Your task to perform on an android device: open the mobile data screen to see how much data has been used Image 0: 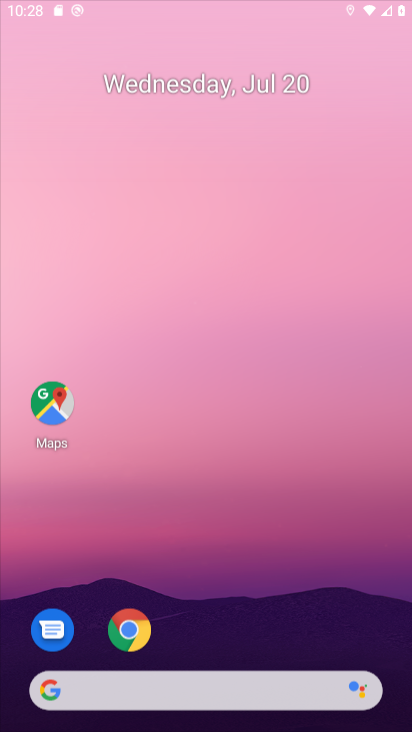
Step 0: click (156, 109)
Your task to perform on an android device: open the mobile data screen to see how much data has been used Image 1: 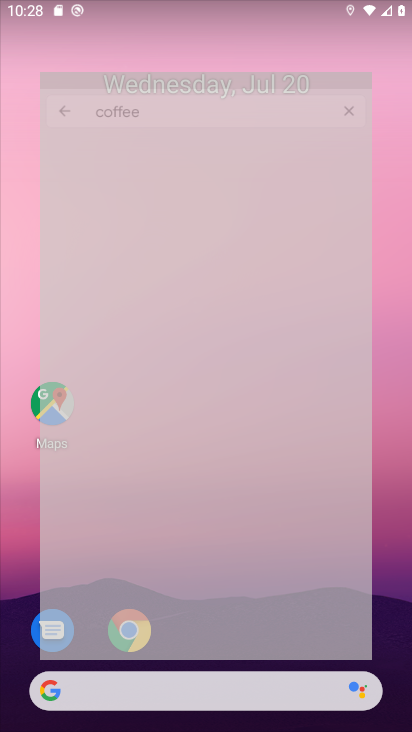
Step 1: drag from (246, 621) to (200, 201)
Your task to perform on an android device: open the mobile data screen to see how much data has been used Image 2: 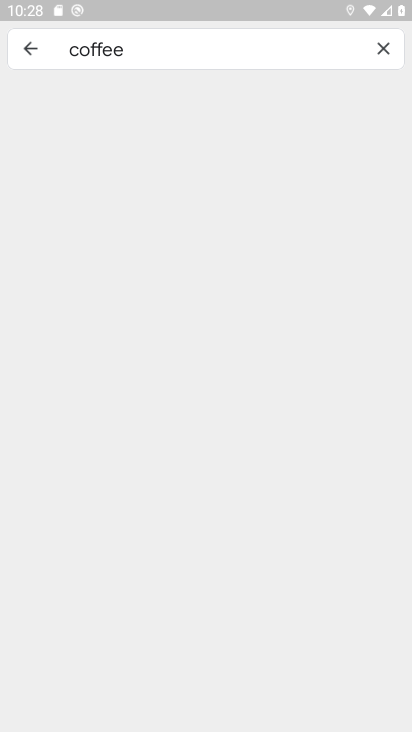
Step 2: click (24, 53)
Your task to perform on an android device: open the mobile data screen to see how much data has been used Image 3: 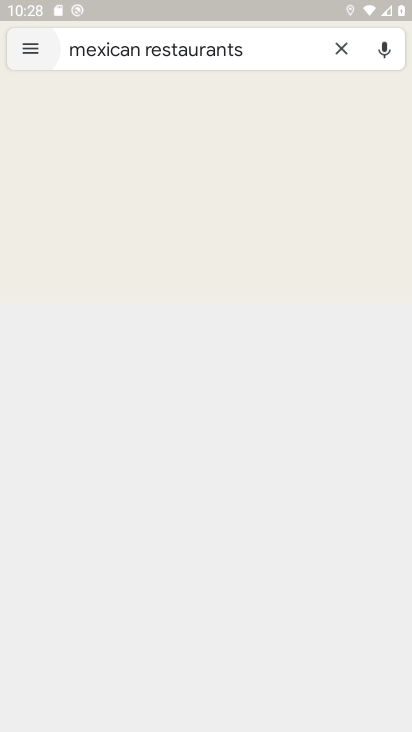
Step 3: click (24, 52)
Your task to perform on an android device: open the mobile data screen to see how much data has been used Image 4: 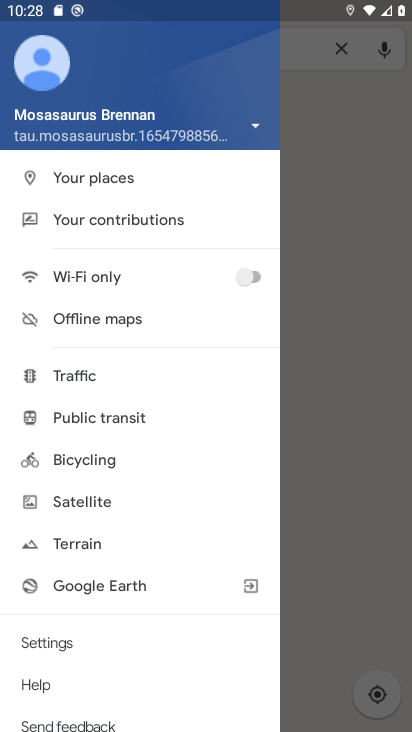
Step 4: press back button
Your task to perform on an android device: open the mobile data screen to see how much data has been used Image 5: 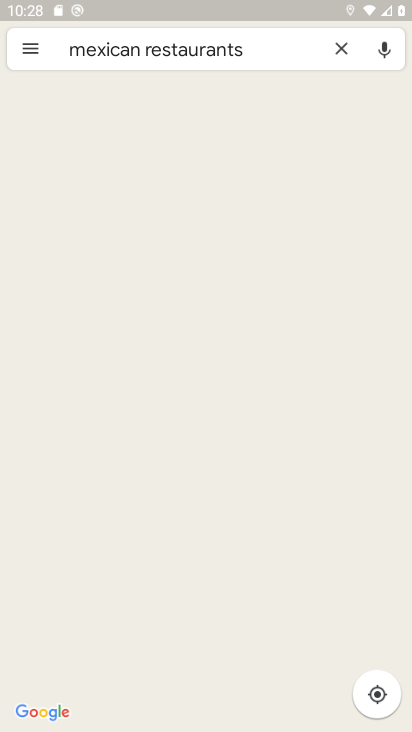
Step 5: press home button
Your task to perform on an android device: open the mobile data screen to see how much data has been used Image 6: 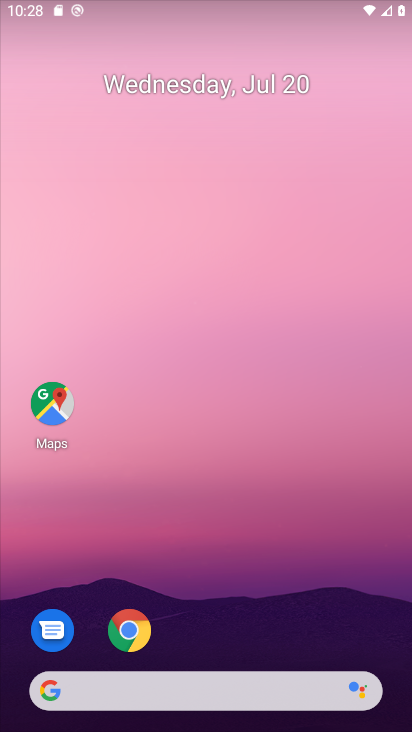
Step 6: drag from (215, 534) to (187, 29)
Your task to perform on an android device: open the mobile data screen to see how much data has been used Image 7: 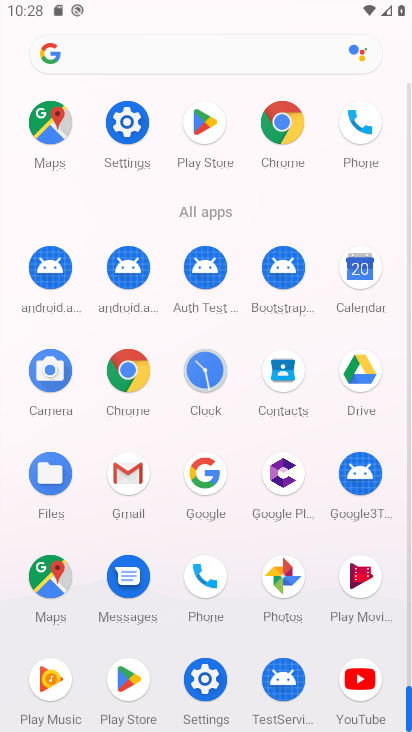
Step 7: click (126, 129)
Your task to perform on an android device: open the mobile data screen to see how much data has been used Image 8: 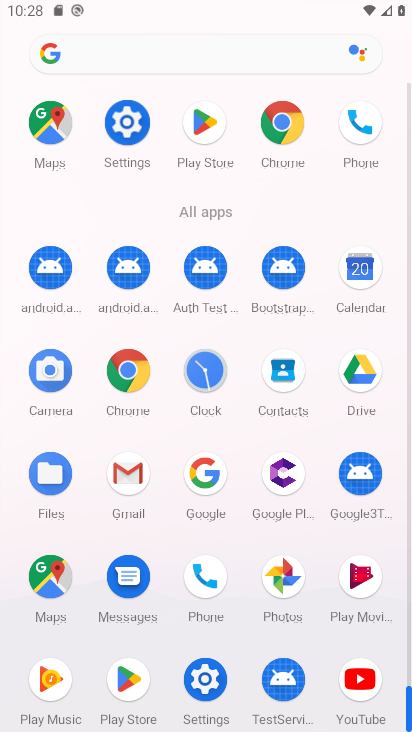
Step 8: click (135, 124)
Your task to perform on an android device: open the mobile data screen to see how much data has been used Image 9: 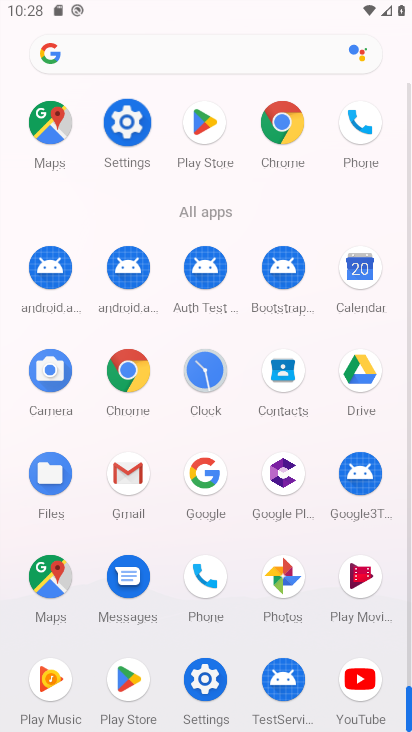
Step 9: click (136, 124)
Your task to perform on an android device: open the mobile data screen to see how much data has been used Image 10: 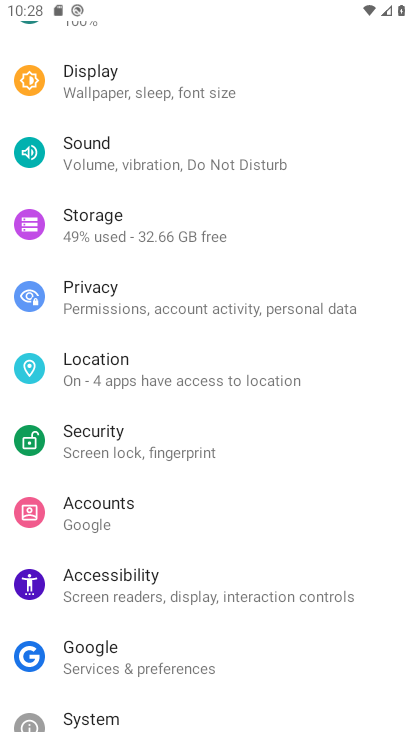
Step 10: drag from (119, 145) to (148, 408)
Your task to perform on an android device: open the mobile data screen to see how much data has been used Image 11: 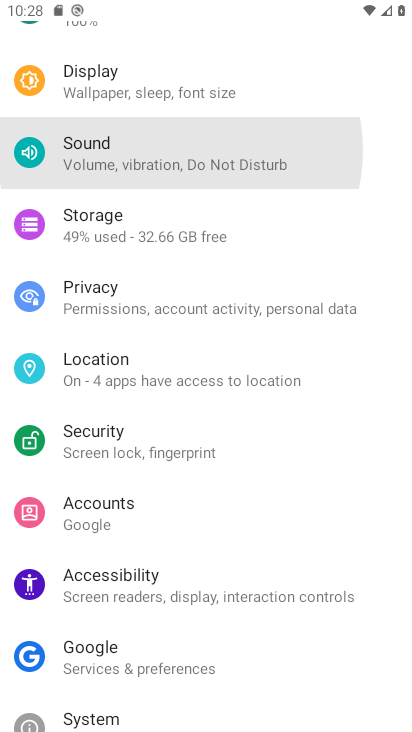
Step 11: drag from (128, 216) to (151, 441)
Your task to perform on an android device: open the mobile data screen to see how much data has been used Image 12: 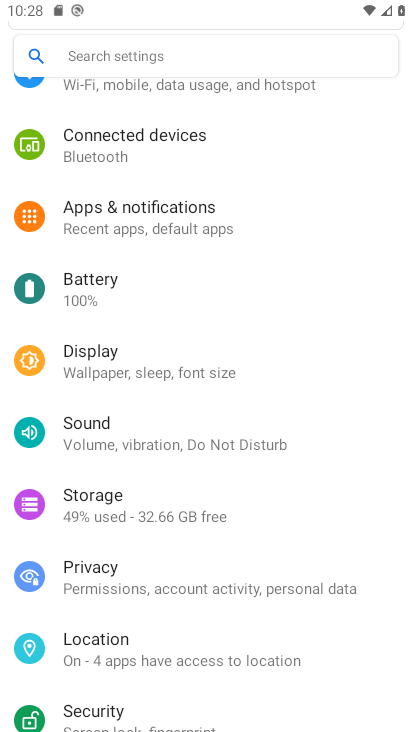
Step 12: drag from (142, 224) to (187, 440)
Your task to perform on an android device: open the mobile data screen to see how much data has been used Image 13: 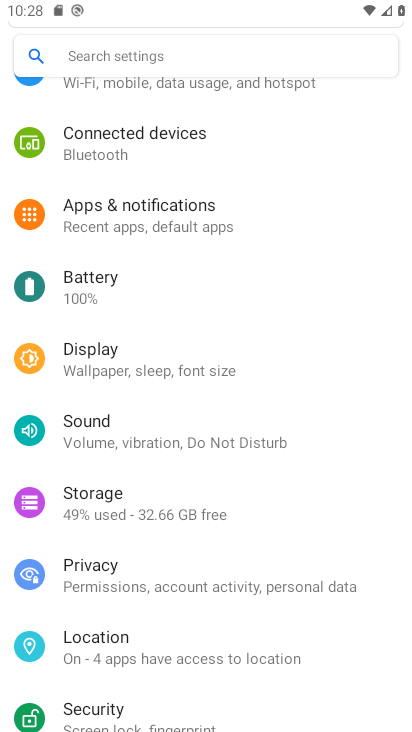
Step 13: drag from (154, 189) to (178, 544)
Your task to perform on an android device: open the mobile data screen to see how much data has been used Image 14: 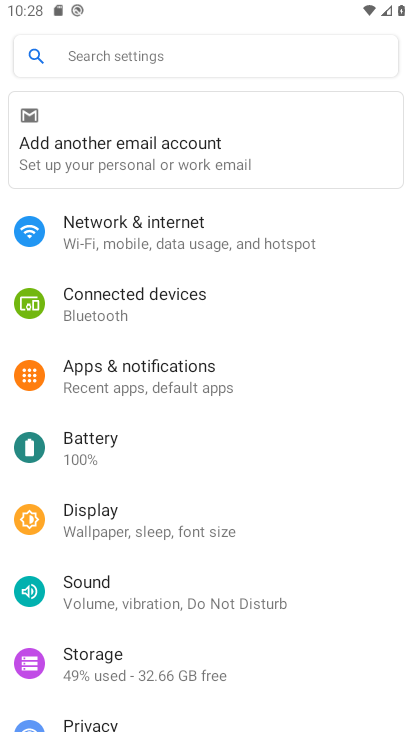
Step 14: click (136, 237)
Your task to perform on an android device: open the mobile data screen to see how much data has been used Image 15: 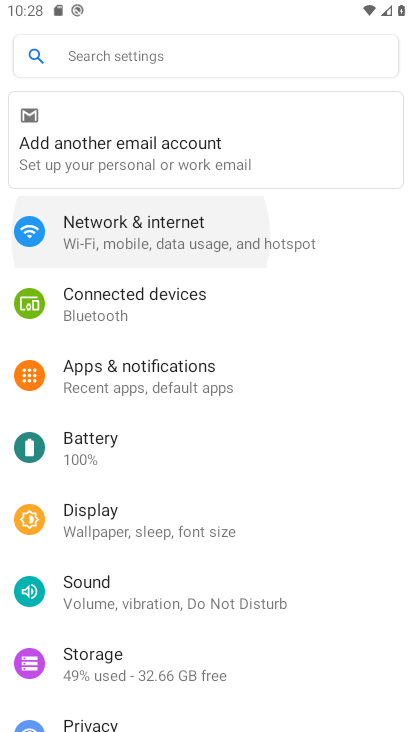
Step 15: click (138, 231)
Your task to perform on an android device: open the mobile data screen to see how much data has been used Image 16: 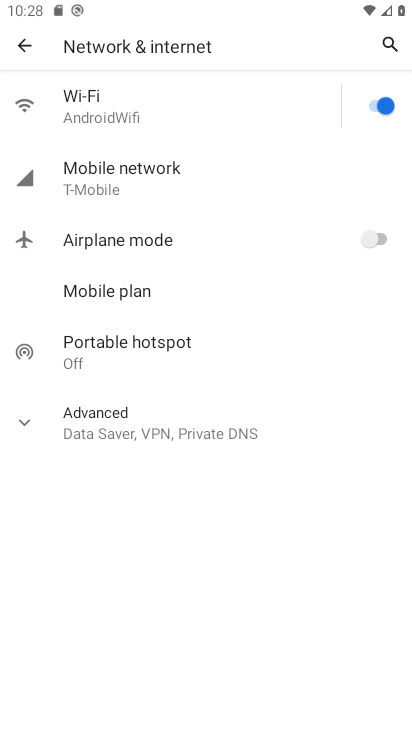
Step 16: click (106, 182)
Your task to perform on an android device: open the mobile data screen to see how much data has been used Image 17: 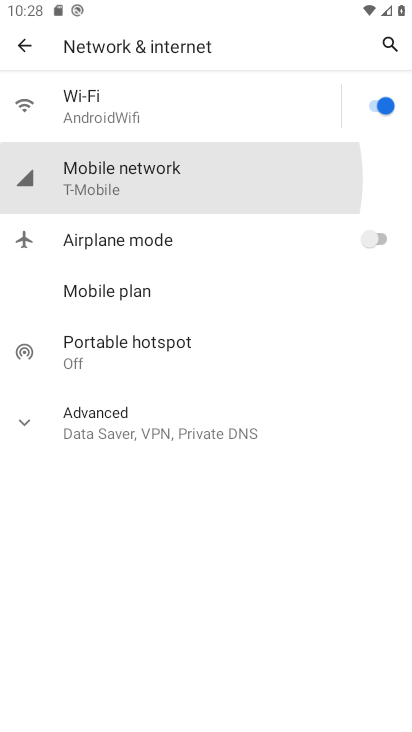
Step 17: click (105, 182)
Your task to perform on an android device: open the mobile data screen to see how much data has been used Image 18: 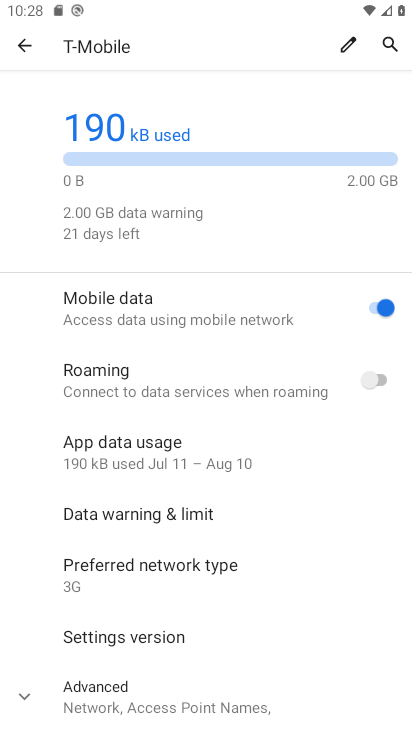
Step 18: task complete